Your task to perform on an android device: Open Google Image 0: 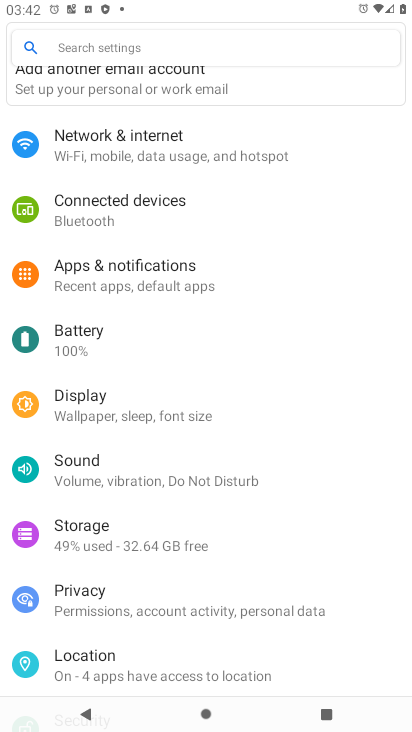
Step 0: press home button
Your task to perform on an android device: Open Google Image 1: 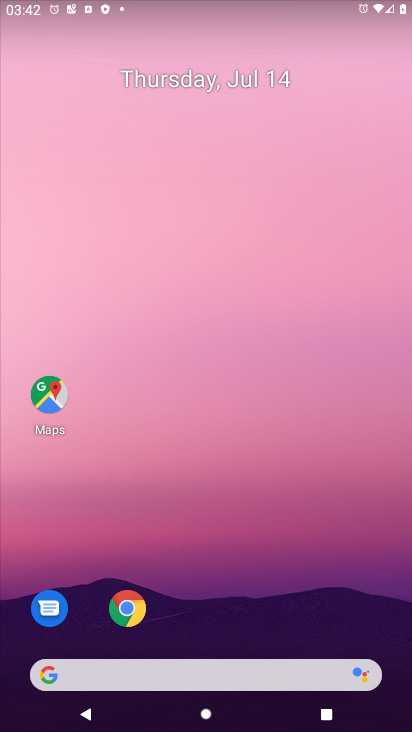
Step 1: click (127, 611)
Your task to perform on an android device: Open Google Image 2: 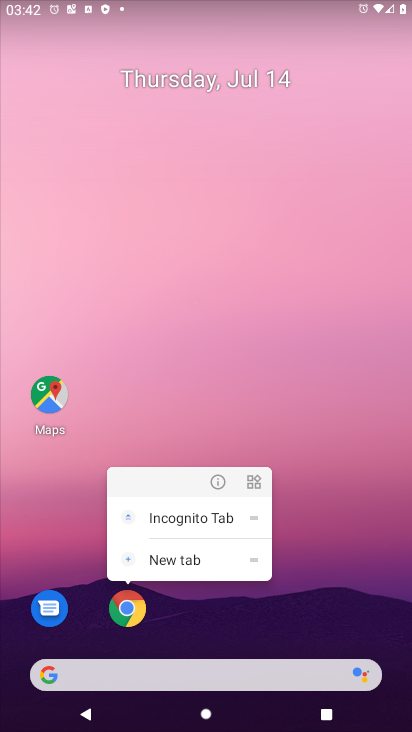
Step 2: click (128, 611)
Your task to perform on an android device: Open Google Image 3: 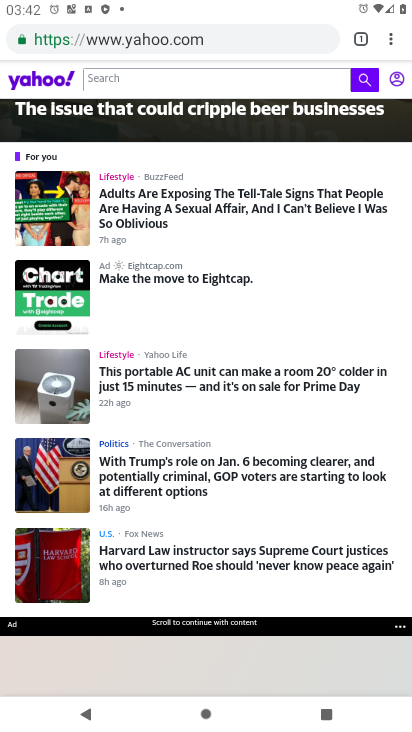
Step 3: task complete